Your task to perform on an android device: turn on the 12-hour format for clock Image 0: 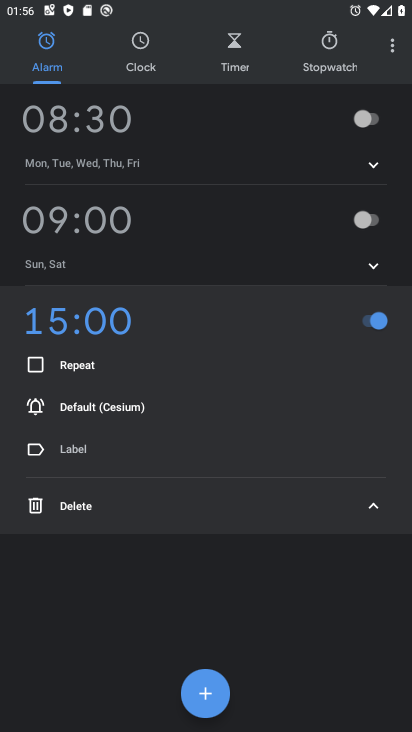
Step 0: press home button
Your task to perform on an android device: turn on the 12-hour format for clock Image 1: 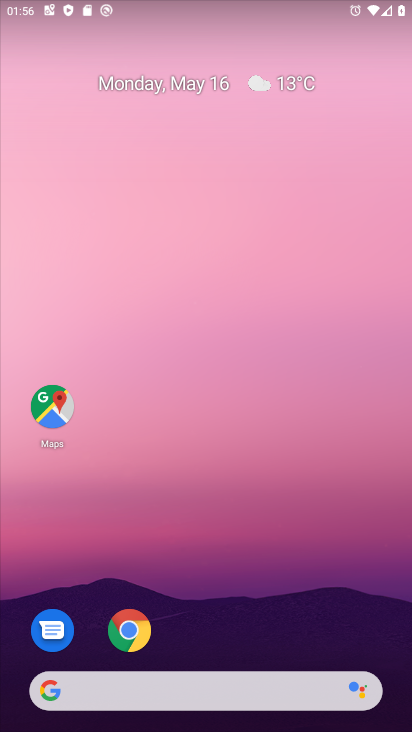
Step 1: drag from (215, 576) to (292, 159)
Your task to perform on an android device: turn on the 12-hour format for clock Image 2: 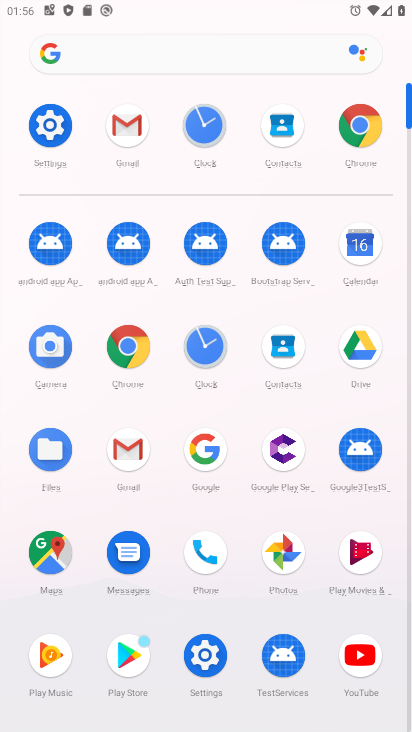
Step 2: click (46, 130)
Your task to perform on an android device: turn on the 12-hour format for clock Image 3: 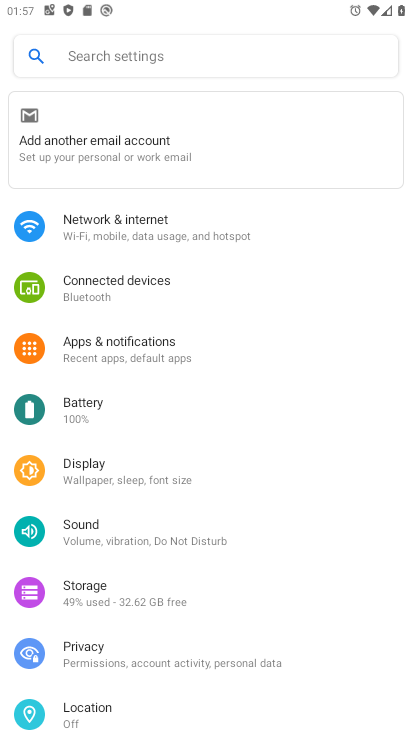
Step 3: press home button
Your task to perform on an android device: turn on the 12-hour format for clock Image 4: 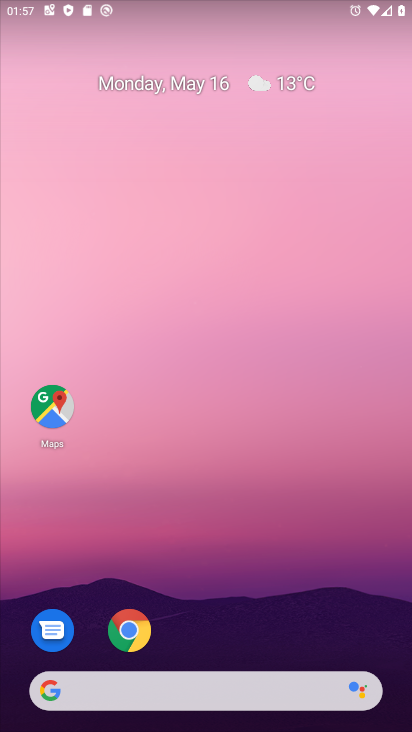
Step 4: drag from (275, 575) to (401, 52)
Your task to perform on an android device: turn on the 12-hour format for clock Image 5: 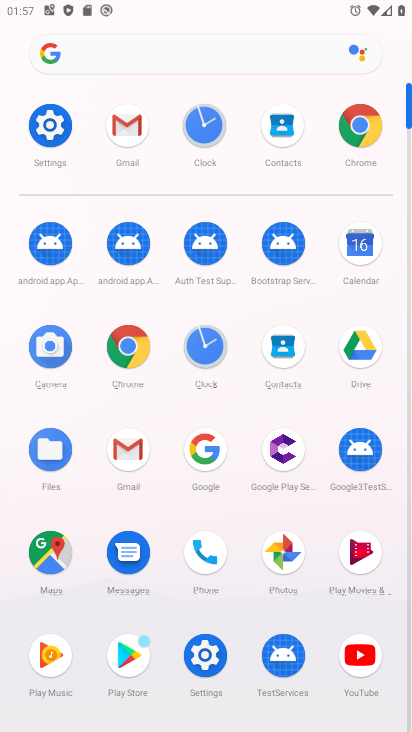
Step 5: click (214, 127)
Your task to perform on an android device: turn on the 12-hour format for clock Image 6: 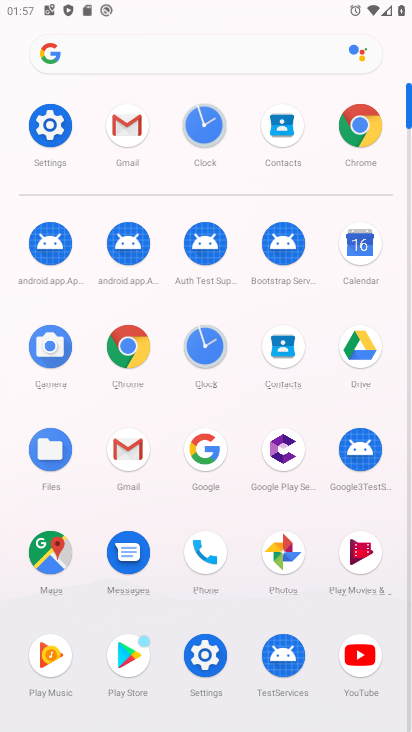
Step 6: click (214, 127)
Your task to perform on an android device: turn on the 12-hour format for clock Image 7: 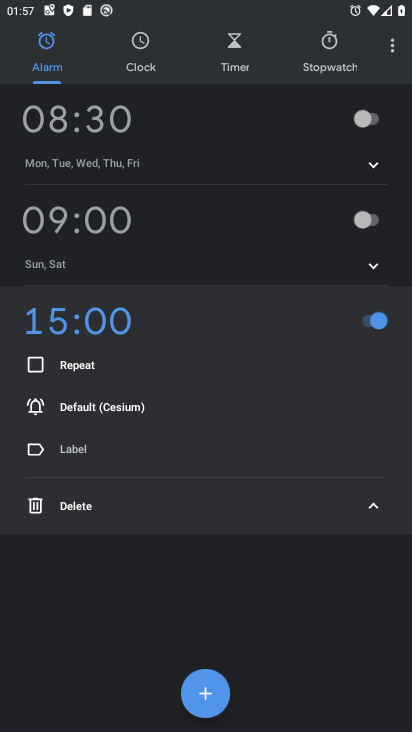
Step 7: click (376, 44)
Your task to perform on an android device: turn on the 12-hour format for clock Image 8: 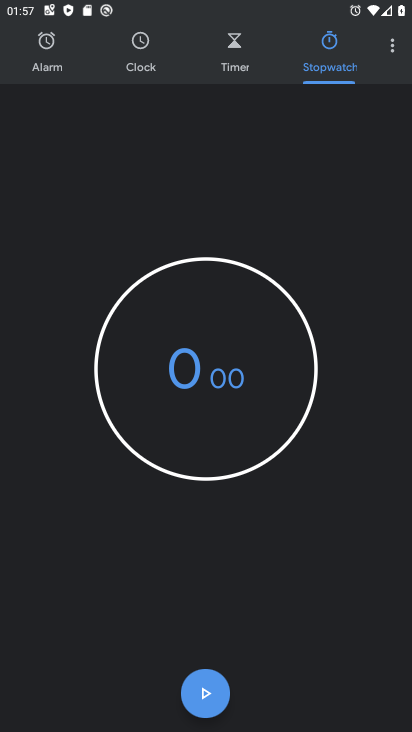
Step 8: click (388, 42)
Your task to perform on an android device: turn on the 12-hour format for clock Image 9: 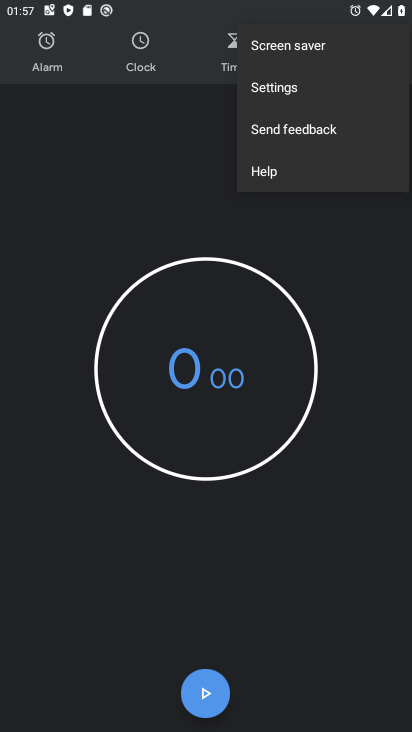
Step 9: click (315, 95)
Your task to perform on an android device: turn on the 12-hour format for clock Image 10: 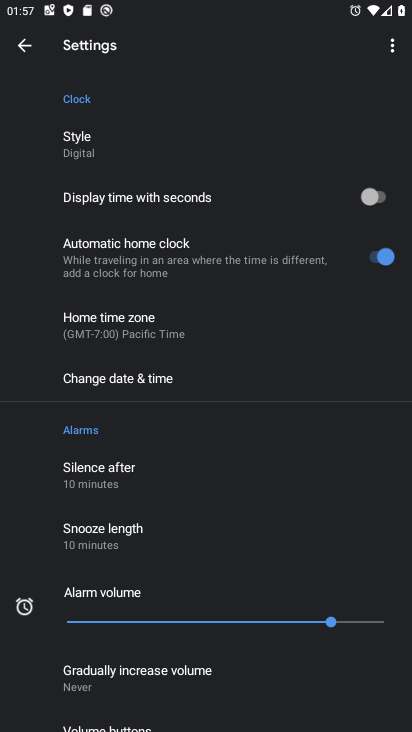
Step 10: click (167, 366)
Your task to perform on an android device: turn on the 12-hour format for clock Image 11: 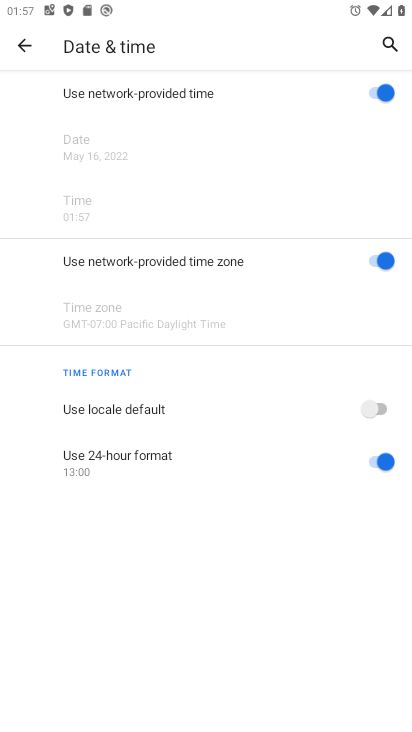
Step 11: click (375, 461)
Your task to perform on an android device: turn on the 12-hour format for clock Image 12: 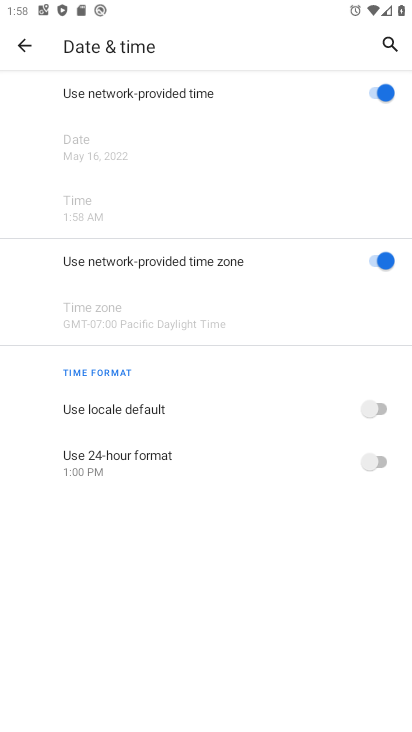
Step 12: task complete